Your task to perform on an android device: Open settings on Google Maps Image 0: 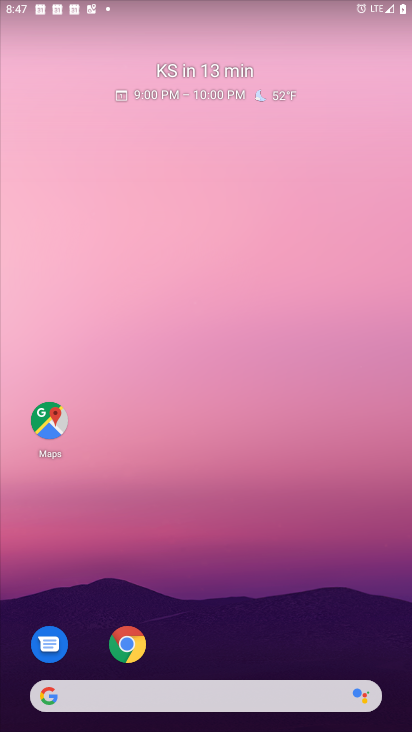
Step 0: click (45, 417)
Your task to perform on an android device: Open settings on Google Maps Image 1: 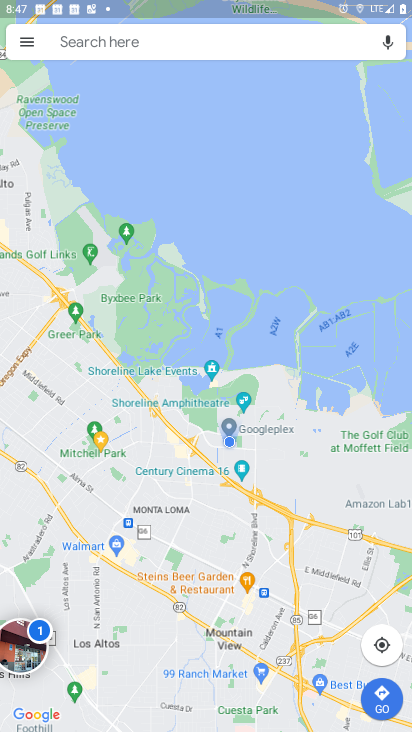
Step 1: click (20, 35)
Your task to perform on an android device: Open settings on Google Maps Image 2: 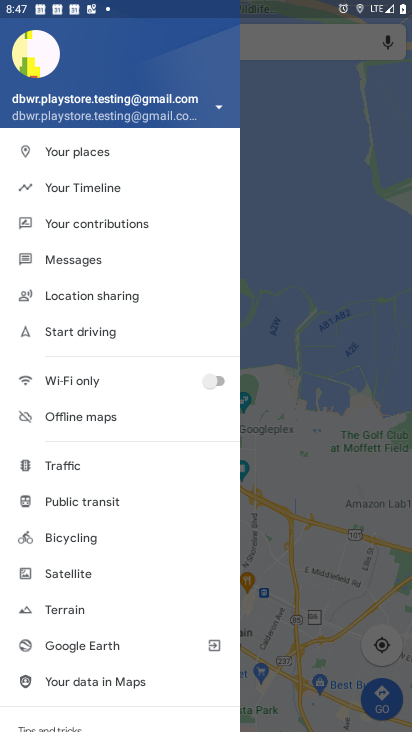
Step 2: drag from (147, 655) to (138, 272)
Your task to perform on an android device: Open settings on Google Maps Image 3: 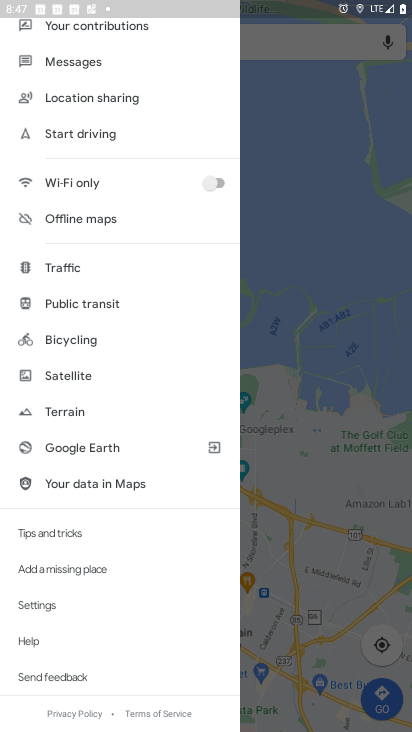
Step 3: click (27, 606)
Your task to perform on an android device: Open settings on Google Maps Image 4: 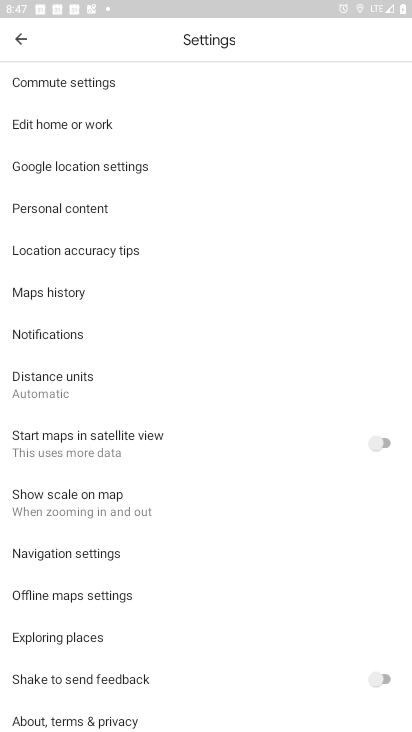
Step 4: task complete